Your task to perform on an android device: set default search engine in the chrome app Image 0: 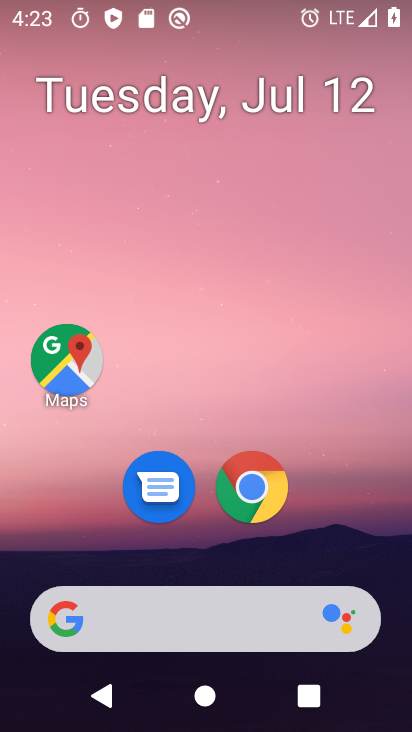
Step 0: drag from (224, 631) to (227, 250)
Your task to perform on an android device: set default search engine in the chrome app Image 1: 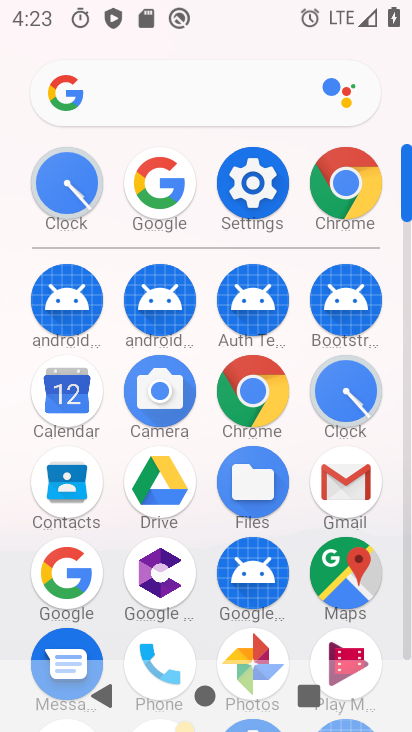
Step 1: click (358, 213)
Your task to perform on an android device: set default search engine in the chrome app Image 2: 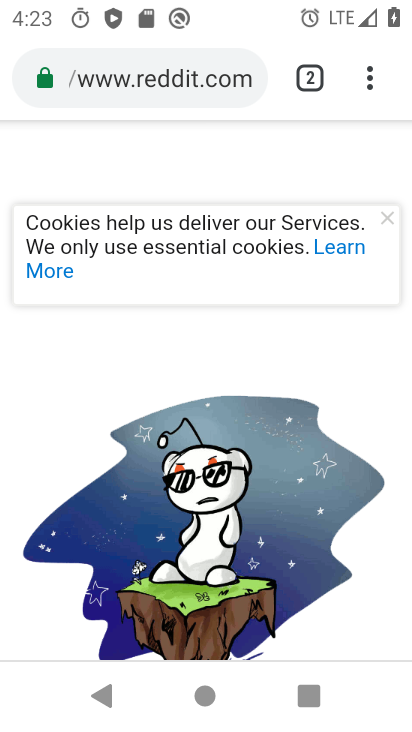
Step 2: click (373, 93)
Your task to perform on an android device: set default search engine in the chrome app Image 3: 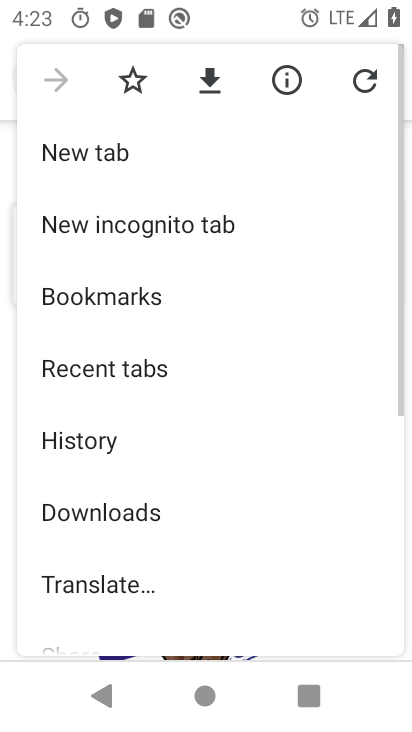
Step 3: drag from (175, 567) to (242, 208)
Your task to perform on an android device: set default search engine in the chrome app Image 4: 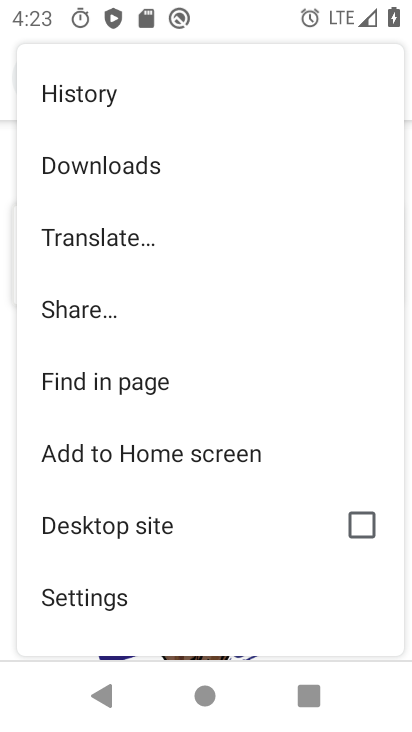
Step 4: click (112, 601)
Your task to perform on an android device: set default search engine in the chrome app Image 5: 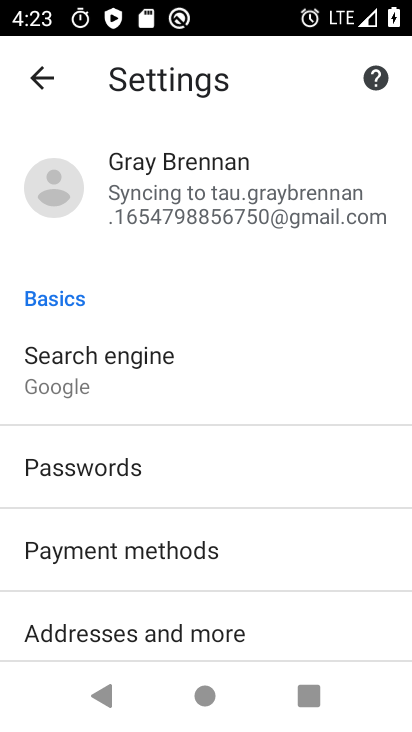
Step 5: click (145, 387)
Your task to perform on an android device: set default search engine in the chrome app Image 6: 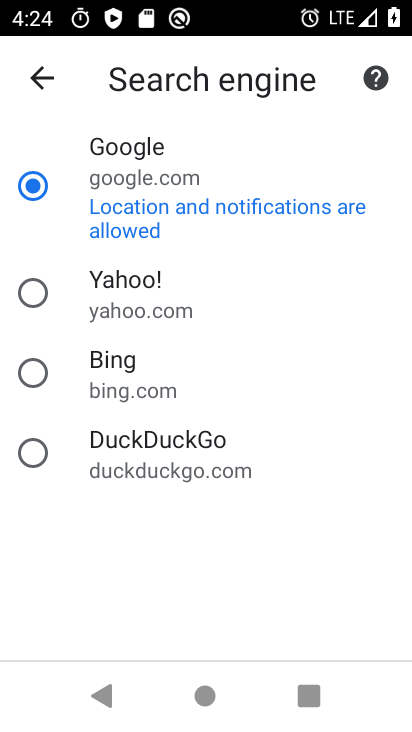
Step 6: task complete